Your task to perform on an android device: turn on sleep mode Image 0: 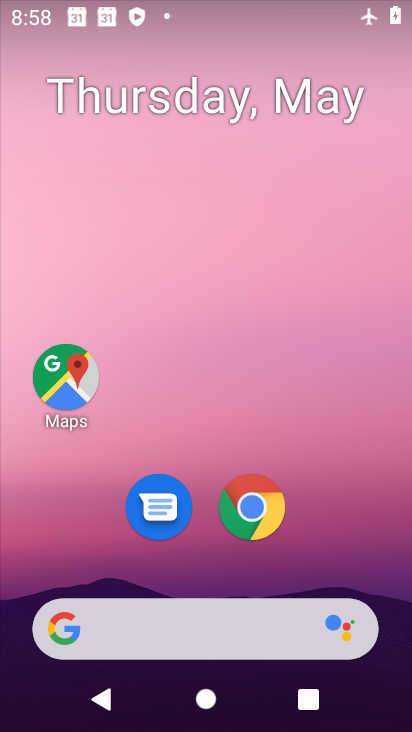
Step 0: drag from (268, 473) to (238, 236)
Your task to perform on an android device: turn on sleep mode Image 1: 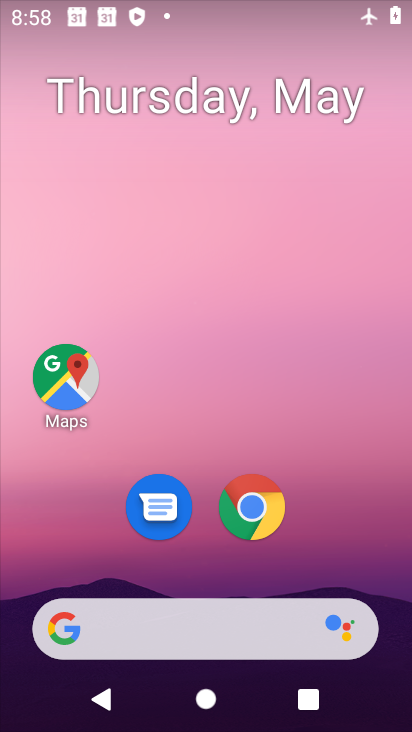
Step 1: drag from (273, 616) to (280, 50)
Your task to perform on an android device: turn on sleep mode Image 2: 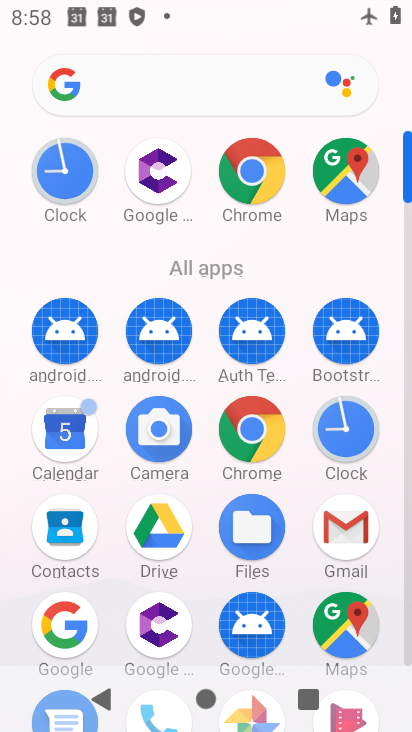
Step 2: drag from (269, 525) to (302, 44)
Your task to perform on an android device: turn on sleep mode Image 3: 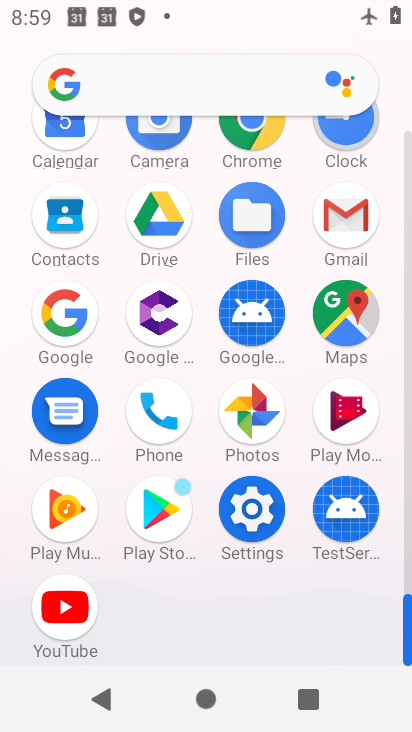
Step 3: click (262, 526)
Your task to perform on an android device: turn on sleep mode Image 4: 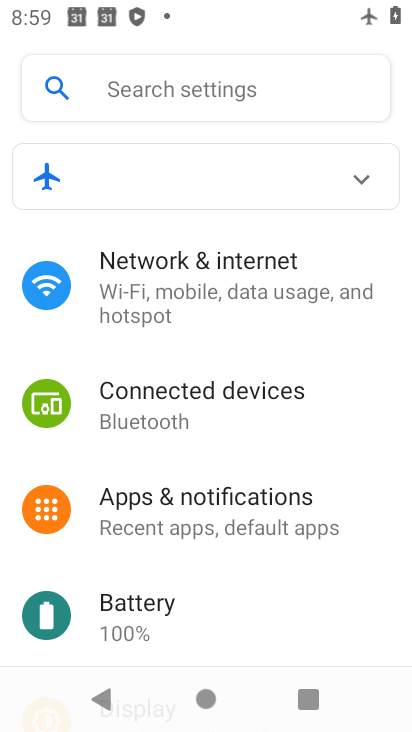
Step 4: drag from (295, 478) to (332, 88)
Your task to perform on an android device: turn on sleep mode Image 5: 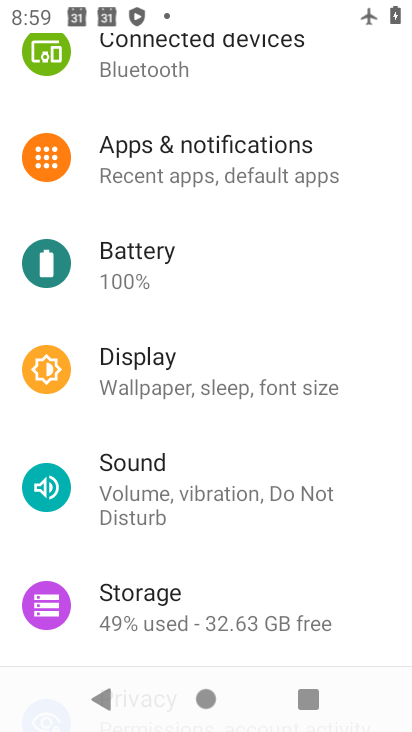
Step 5: click (227, 379)
Your task to perform on an android device: turn on sleep mode Image 6: 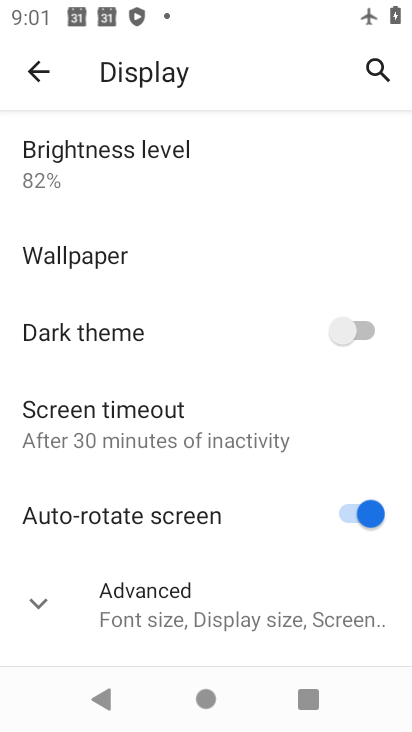
Step 6: click (225, 591)
Your task to perform on an android device: turn on sleep mode Image 7: 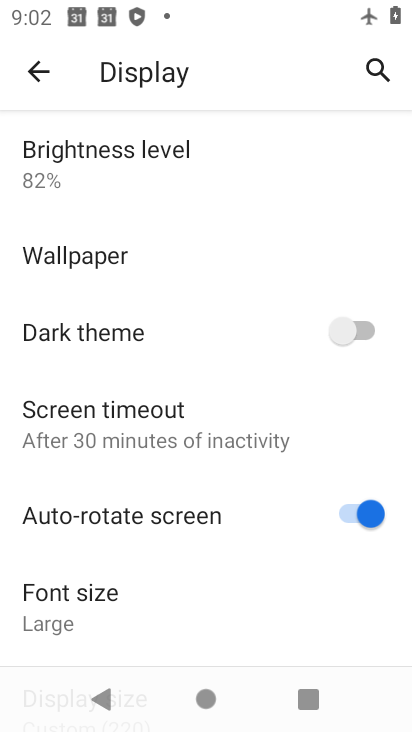
Step 7: task complete